Your task to perform on an android device: Search for pizza restaurants on Maps Image 0: 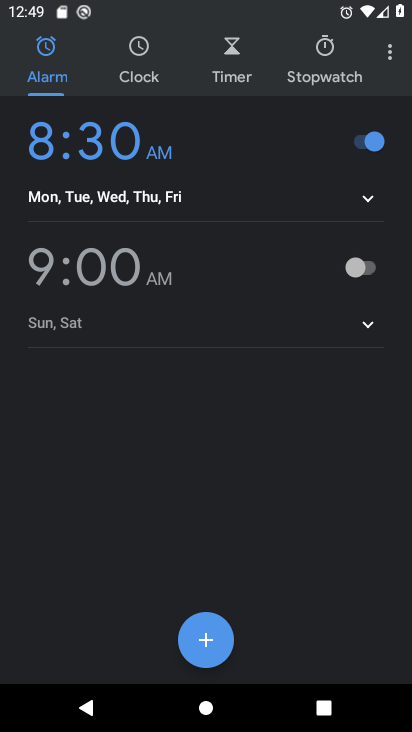
Step 0: press home button
Your task to perform on an android device: Search for pizza restaurants on Maps Image 1: 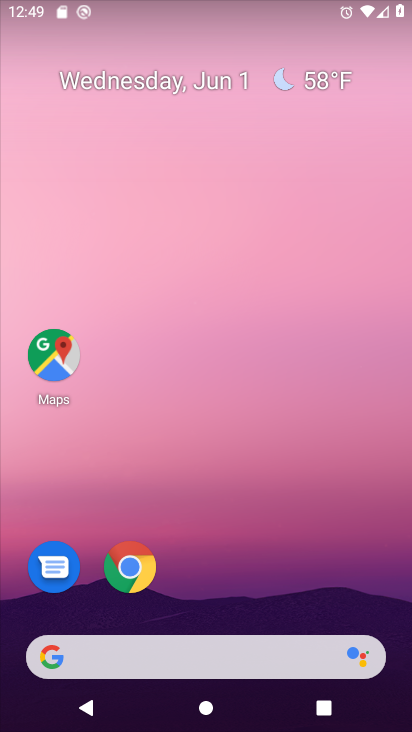
Step 1: click (45, 341)
Your task to perform on an android device: Search for pizza restaurants on Maps Image 2: 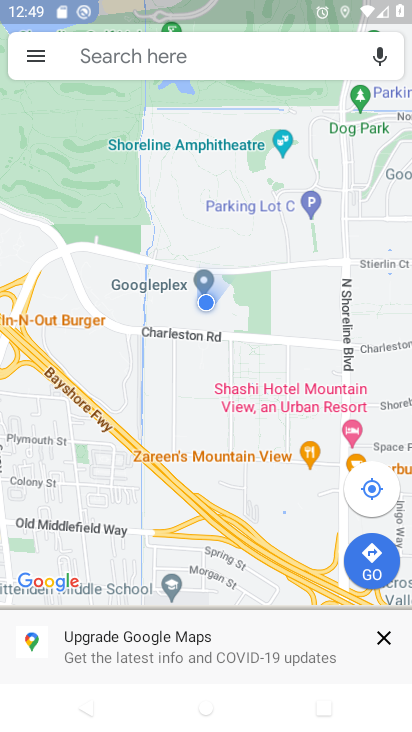
Step 2: click (178, 50)
Your task to perform on an android device: Search for pizza restaurants on Maps Image 3: 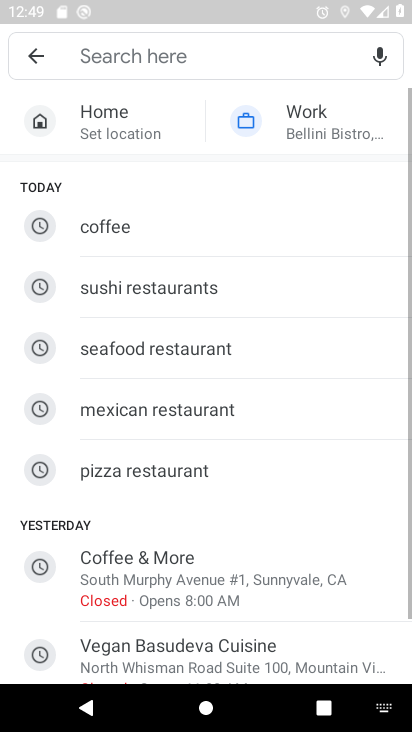
Step 3: click (169, 462)
Your task to perform on an android device: Search for pizza restaurants on Maps Image 4: 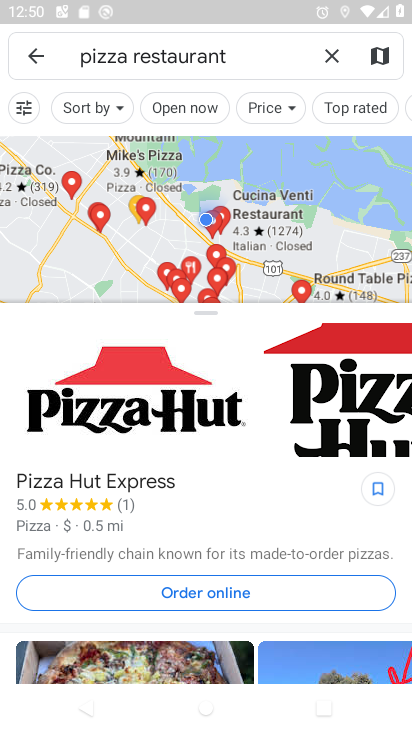
Step 4: task complete